Your task to perform on an android device: install app "Google Photos" Image 0: 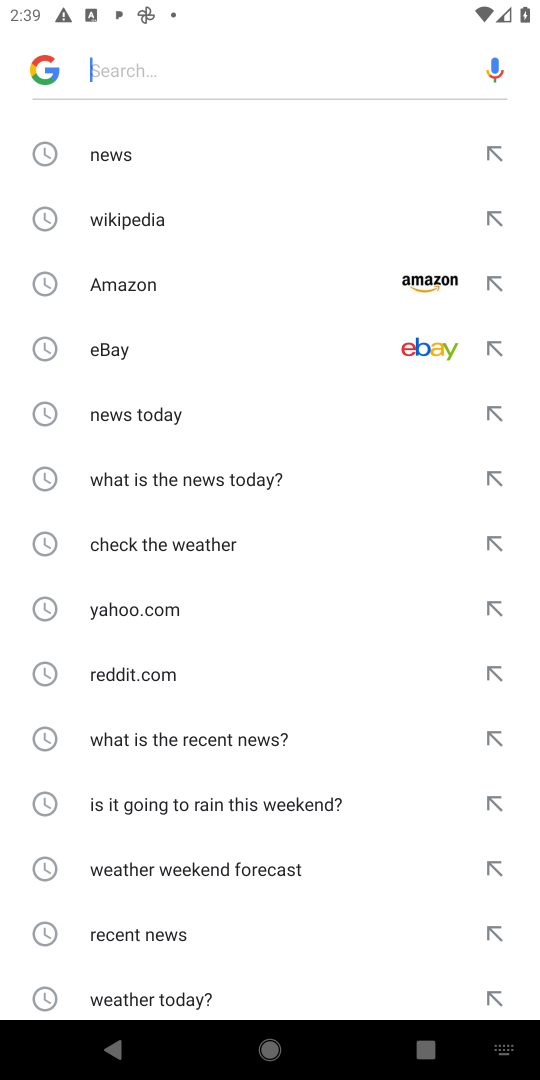
Step 0: press home button
Your task to perform on an android device: install app "Google Photos" Image 1: 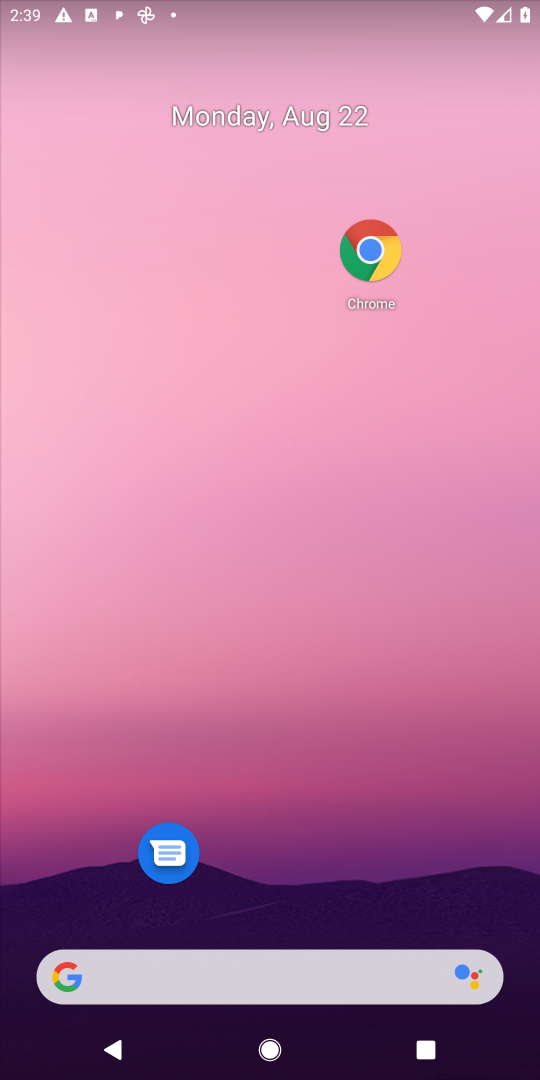
Step 1: drag from (277, 786) to (232, 47)
Your task to perform on an android device: install app "Google Photos" Image 2: 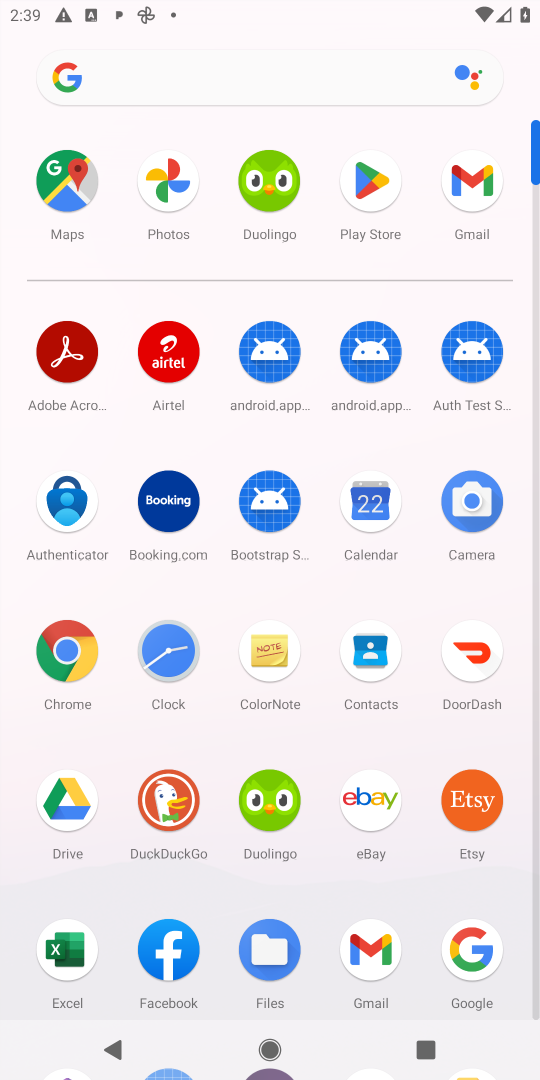
Step 2: click (372, 171)
Your task to perform on an android device: install app "Google Photos" Image 3: 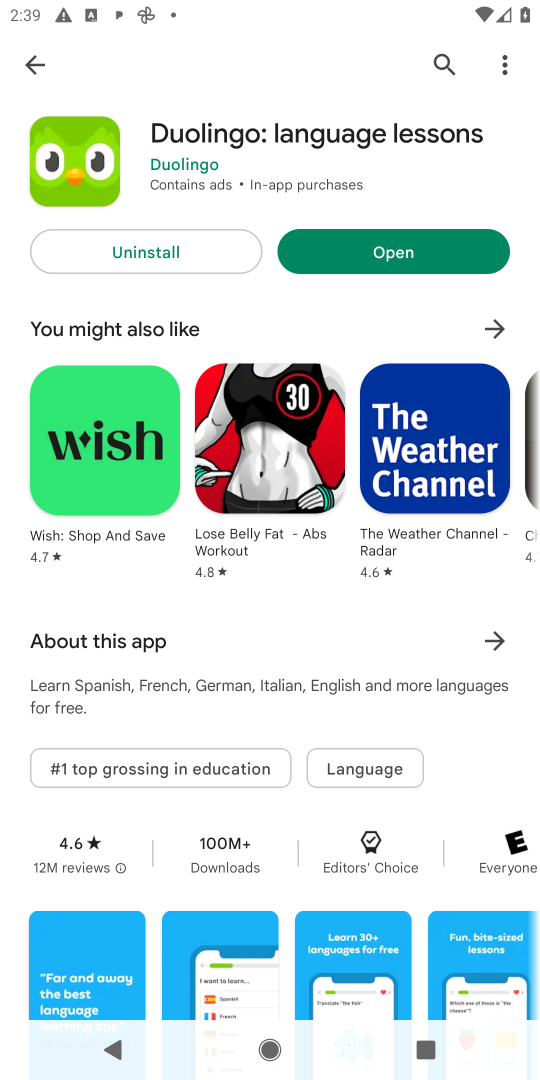
Step 3: click (21, 39)
Your task to perform on an android device: install app "Google Photos" Image 4: 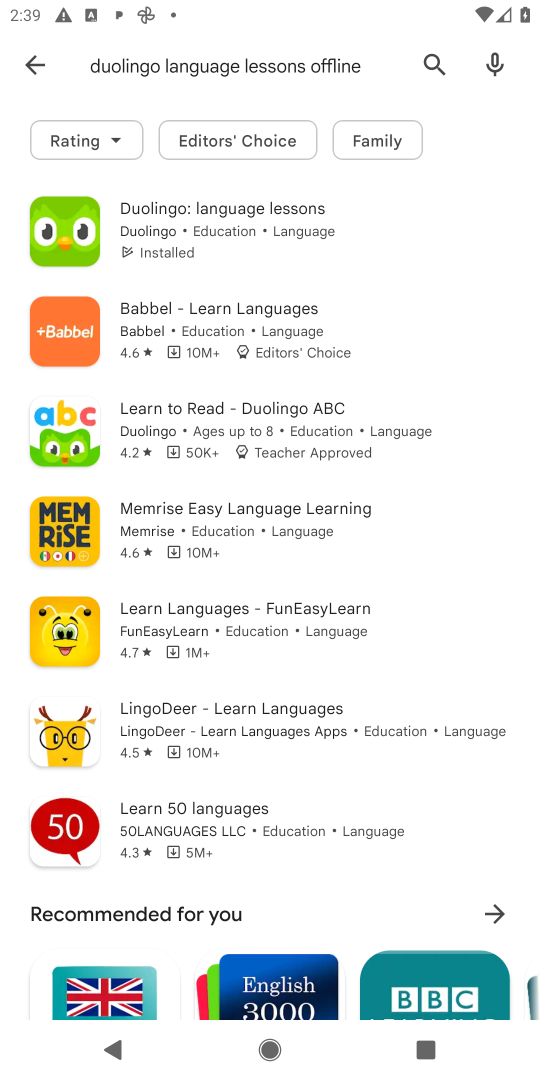
Step 4: click (21, 47)
Your task to perform on an android device: install app "Google Photos" Image 5: 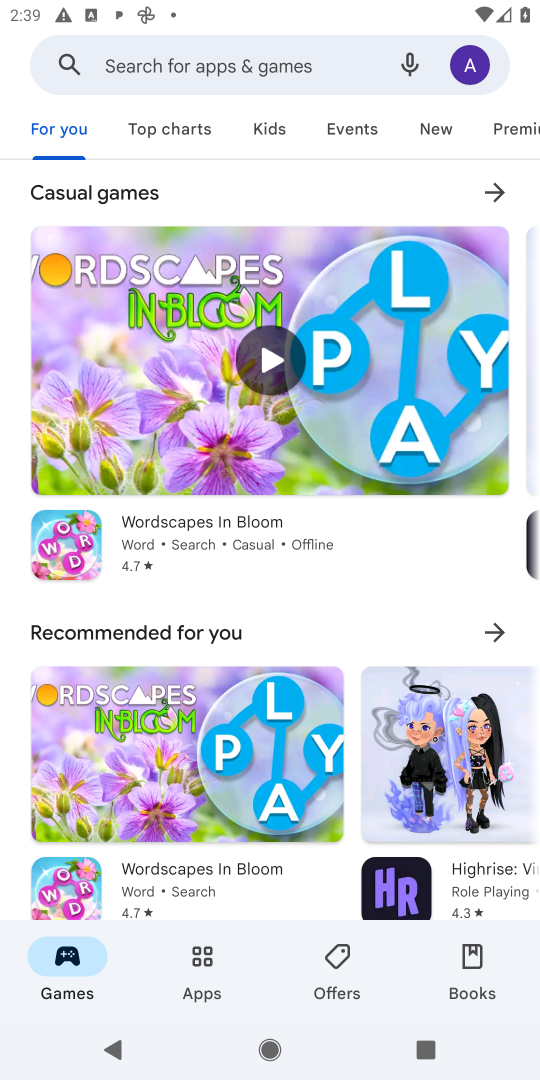
Step 5: click (251, 44)
Your task to perform on an android device: install app "Google Photos" Image 6: 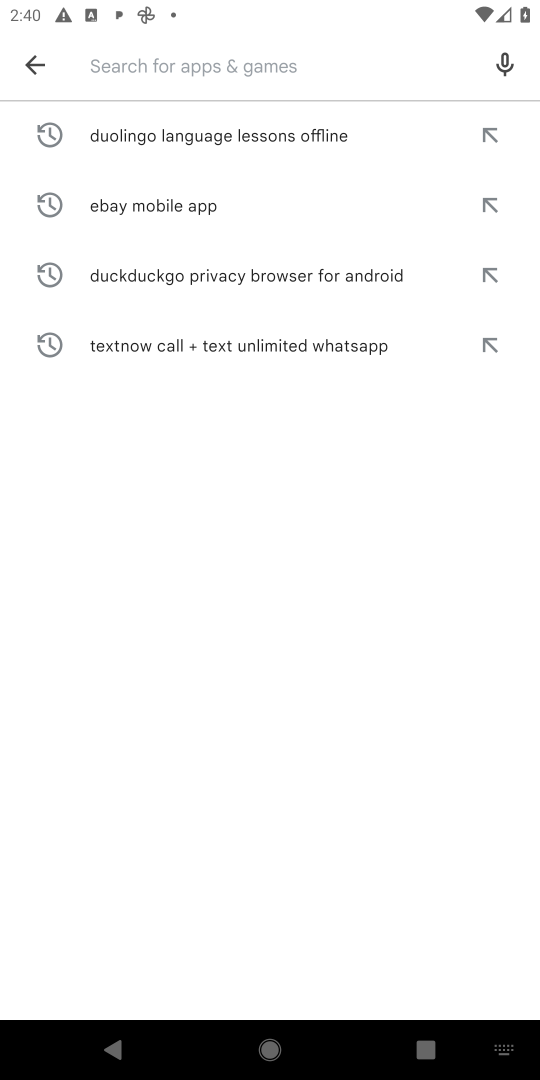
Step 6: type "Google Photos "
Your task to perform on an android device: install app "Google Photos" Image 7: 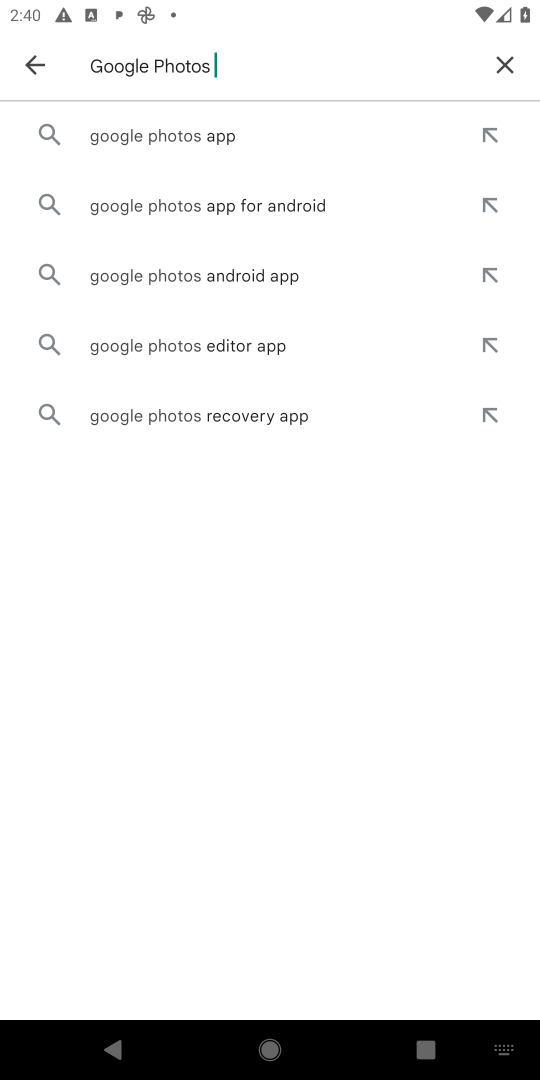
Step 7: click (177, 139)
Your task to perform on an android device: install app "Google Photos" Image 8: 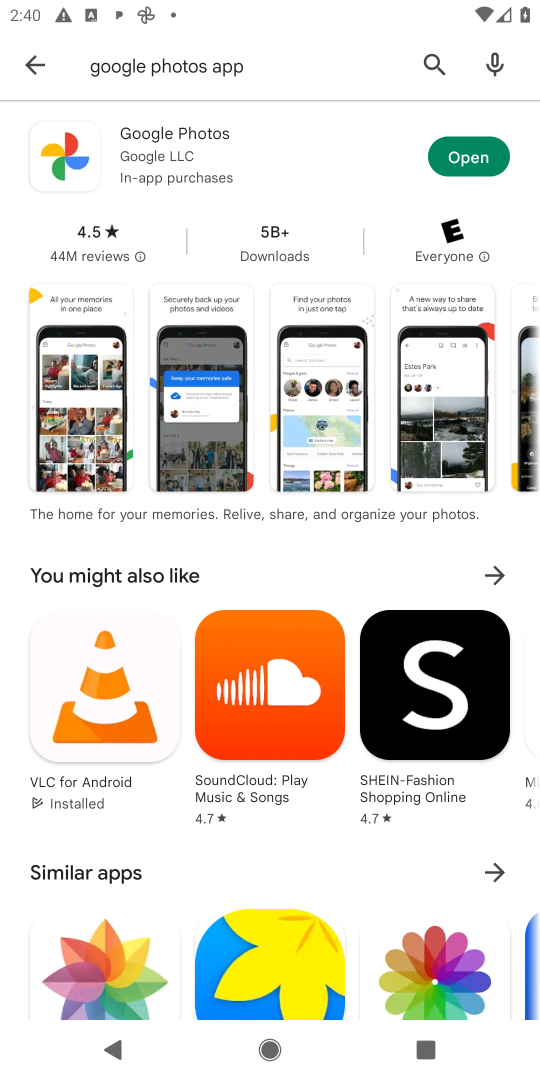
Step 8: click (477, 160)
Your task to perform on an android device: install app "Google Photos" Image 9: 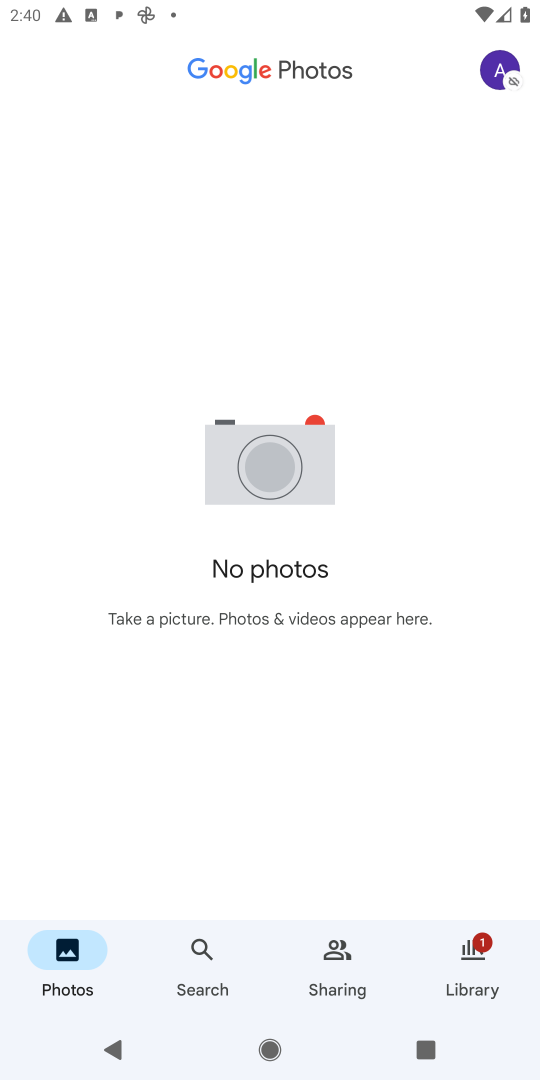
Step 9: task complete